Your task to perform on an android device: Open Chrome and go to settings Image 0: 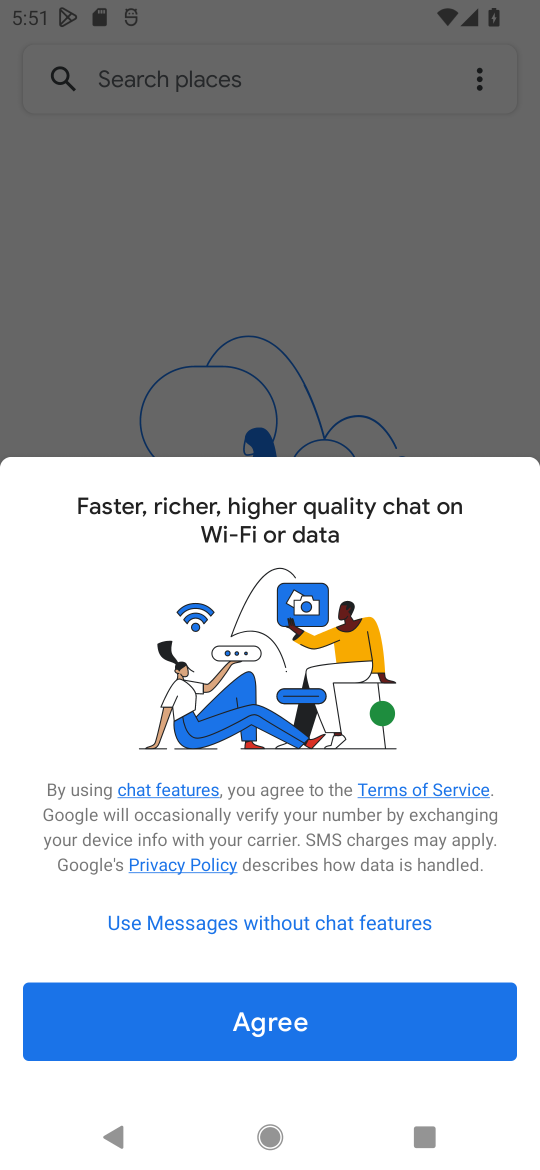
Step 0: press home button
Your task to perform on an android device: Open Chrome and go to settings Image 1: 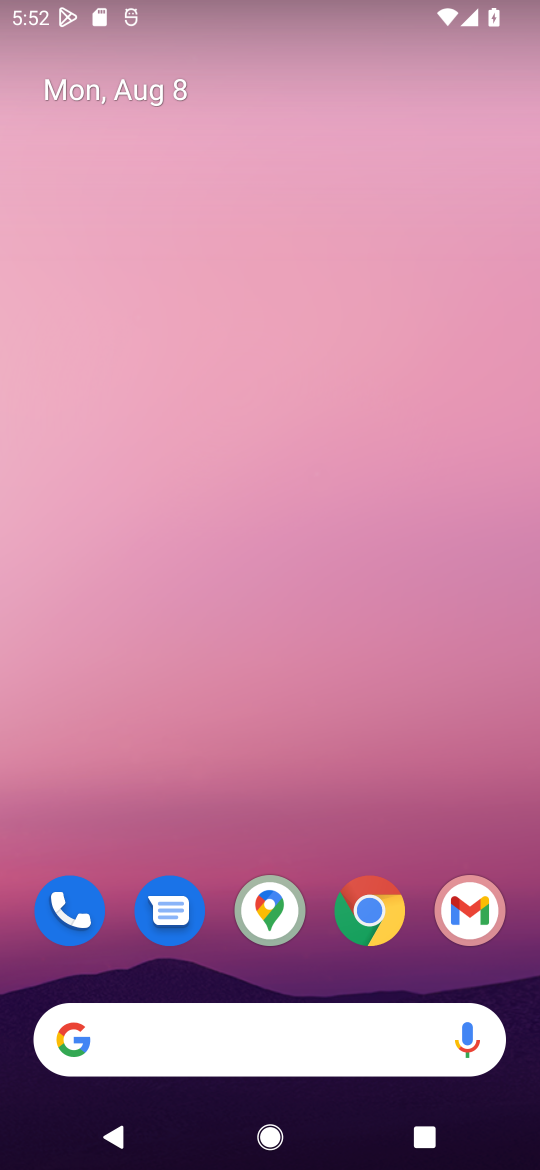
Step 1: click (377, 915)
Your task to perform on an android device: Open Chrome and go to settings Image 2: 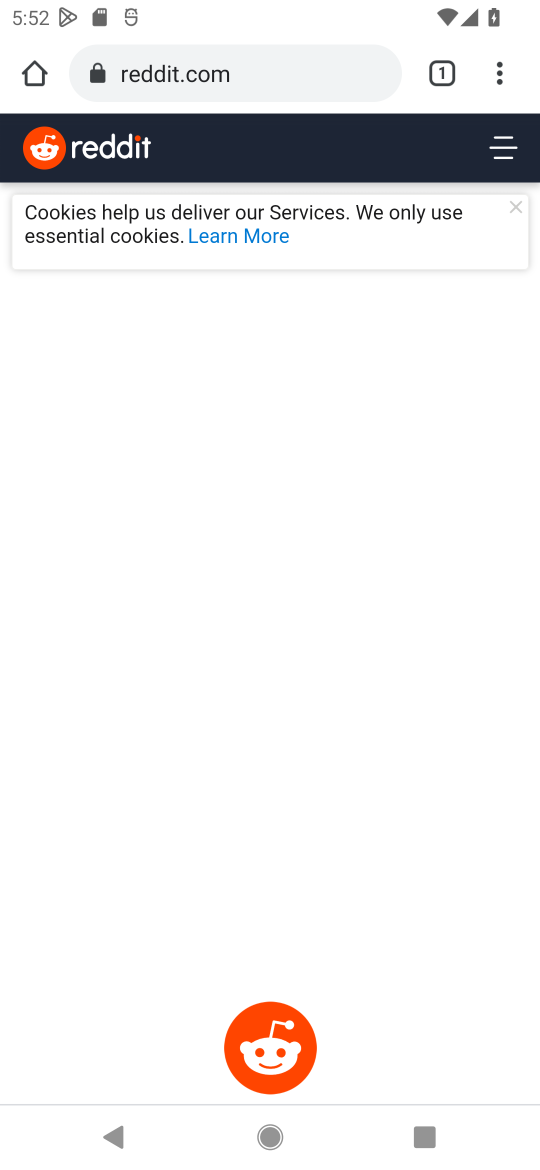
Step 2: click (497, 70)
Your task to perform on an android device: Open Chrome and go to settings Image 3: 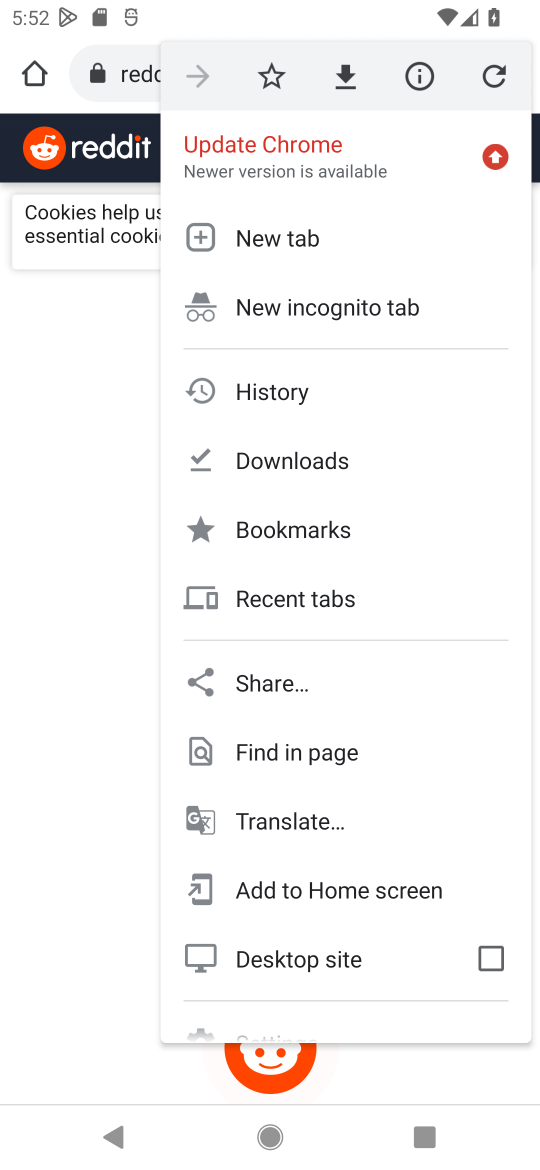
Step 3: drag from (417, 776) to (378, 452)
Your task to perform on an android device: Open Chrome and go to settings Image 4: 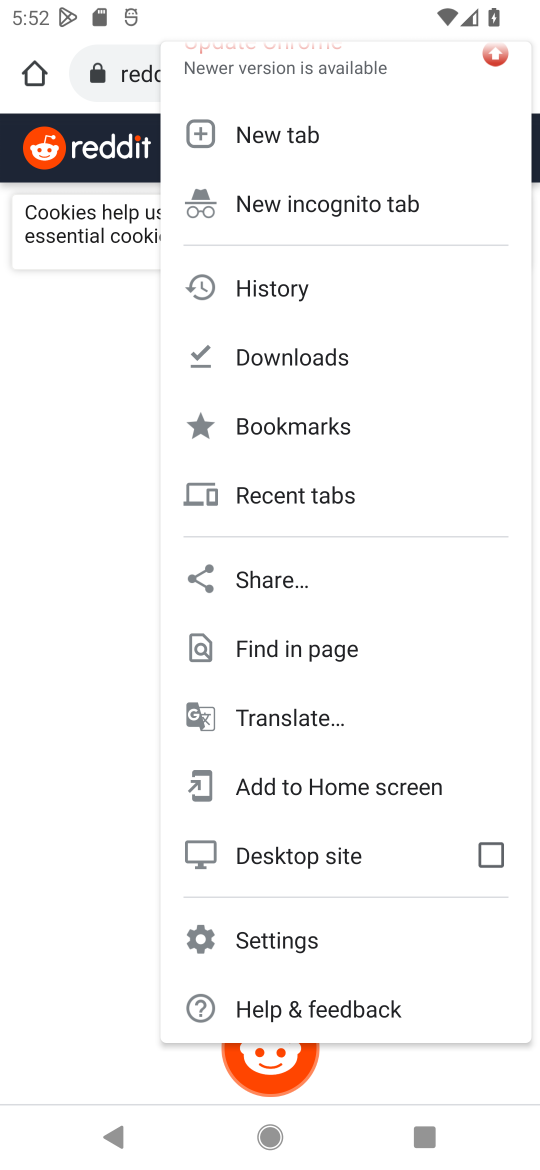
Step 4: click (288, 936)
Your task to perform on an android device: Open Chrome and go to settings Image 5: 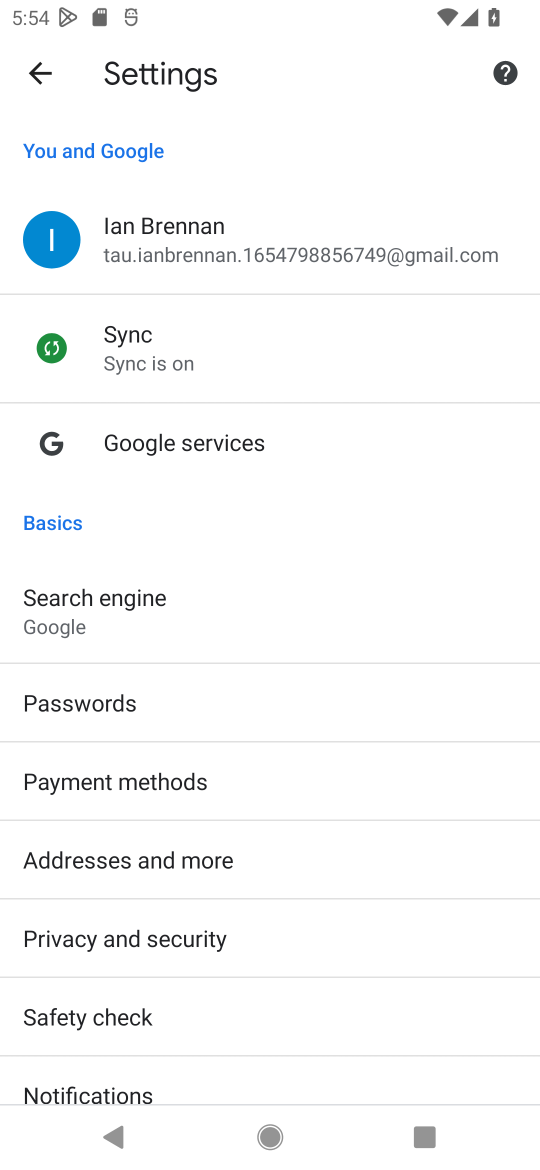
Step 5: task complete